Your task to perform on an android device: change notifications settings Image 0: 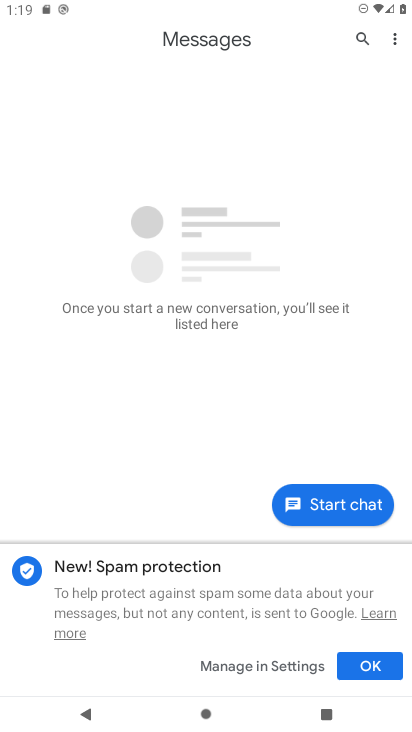
Step 0: press home button
Your task to perform on an android device: change notifications settings Image 1: 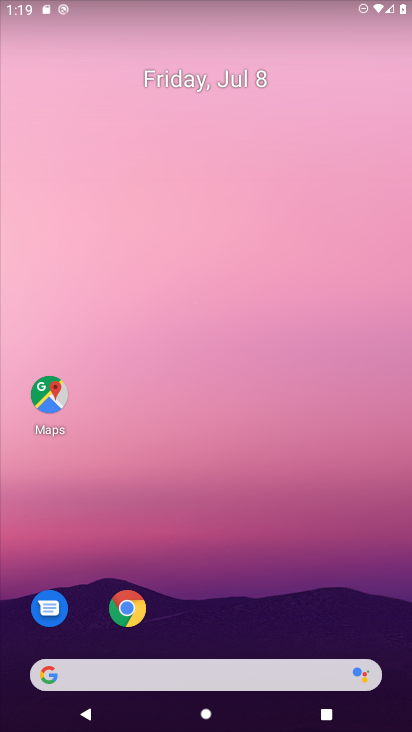
Step 1: drag from (228, 630) to (170, 54)
Your task to perform on an android device: change notifications settings Image 2: 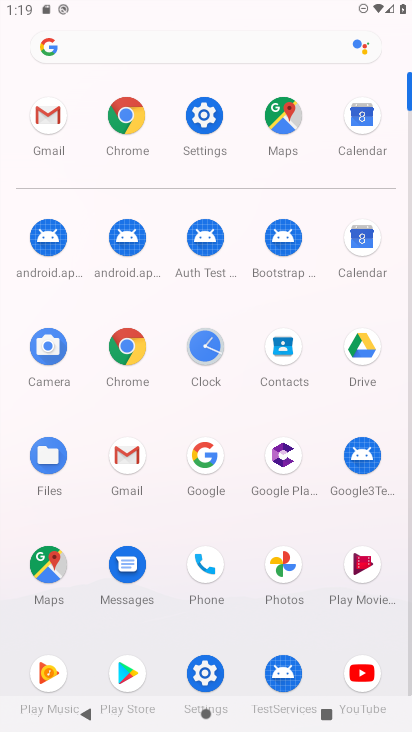
Step 2: click (199, 118)
Your task to perform on an android device: change notifications settings Image 3: 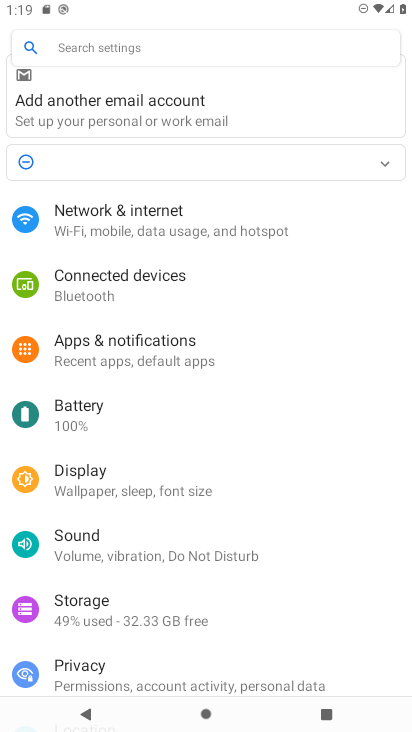
Step 3: click (196, 338)
Your task to perform on an android device: change notifications settings Image 4: 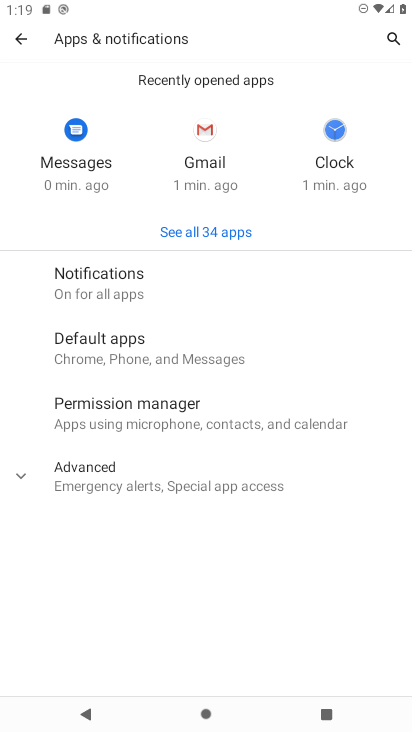
Step 4: task complete